Your task to perform on an android device: turn on the 24-hour format for clock Image 0: 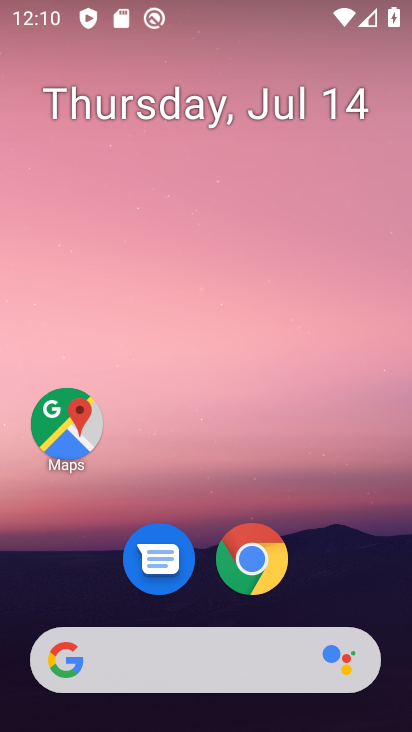
Step 0: drag from (308, 482) to (243, 15)
Your task to perform on an android device: turn on the 24-hour format for clock Image 1: 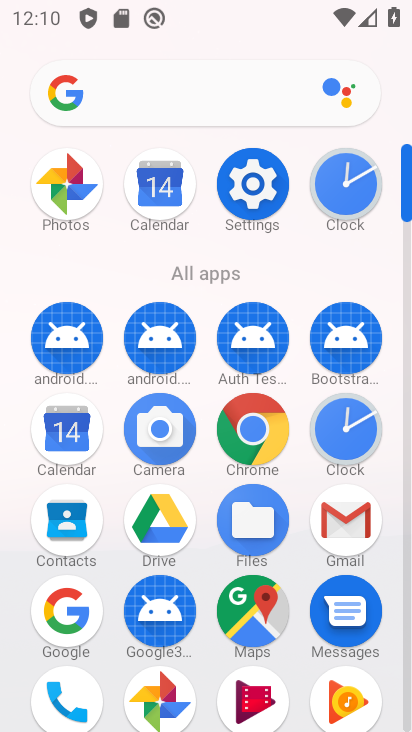
Step 1: click (336, 192)
Your task to perform on an android device: turn on the 24-hour format for clock Image 2: 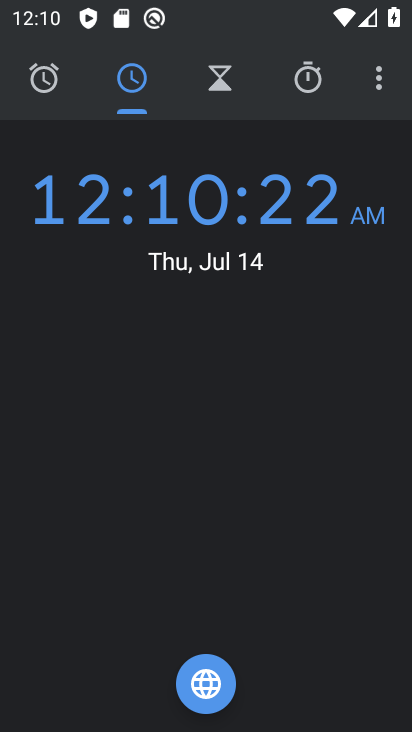
Step 2: click (376, 80)
Your task to perform on an android device: turn on the 24-hour format for clock Image 3: 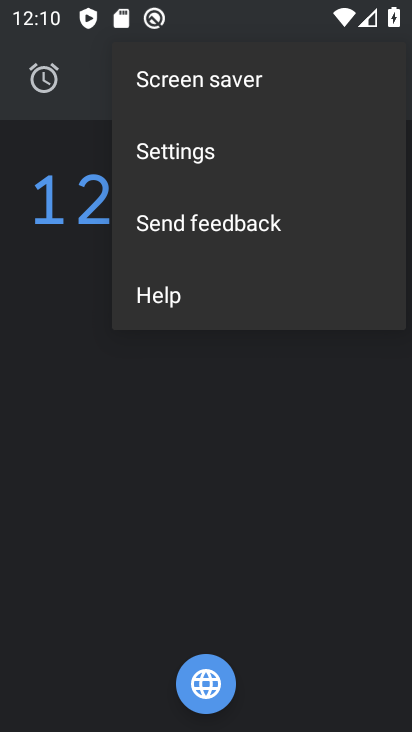
Step 3: click (237, 158)
Your task to perform on an android device: turn on the 24-hour format for clock Image 4: 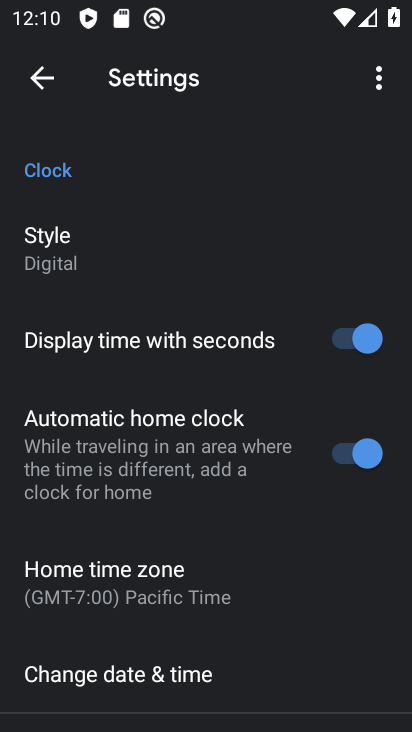
Step 4: click (200, 668)
Your task to perform on an android device: turn on the 24-hour format for clock Image 5: 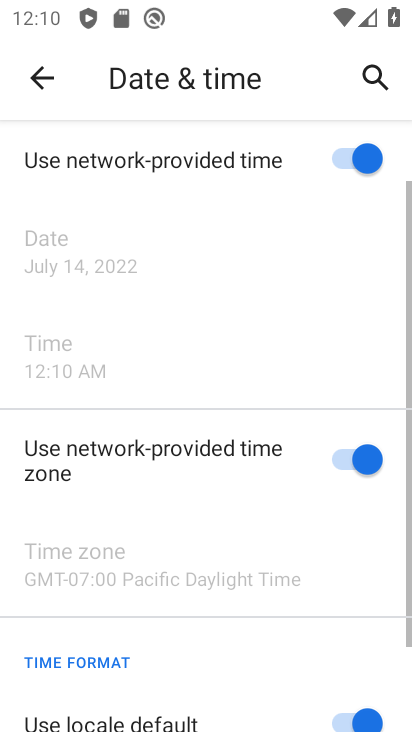
Step 5: drag from (235, 634) to (233, 504)
Your task to perform on an android device: turn on the 24-hour format for clock Image 6: 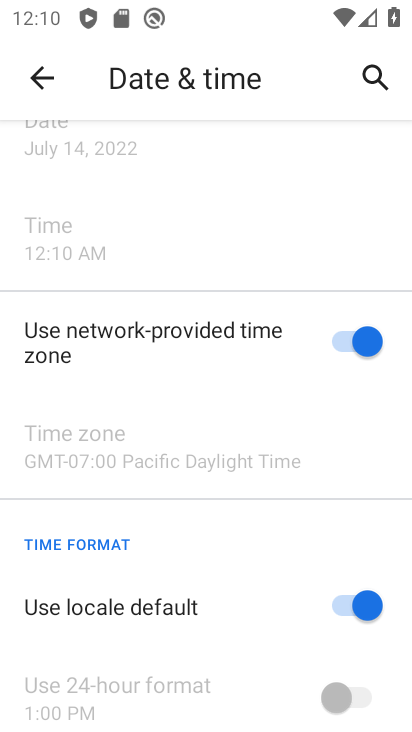
Step 6: click (346, 591)
Your task to perform on an android device: turn on the 24-hour format for clock Image 7: 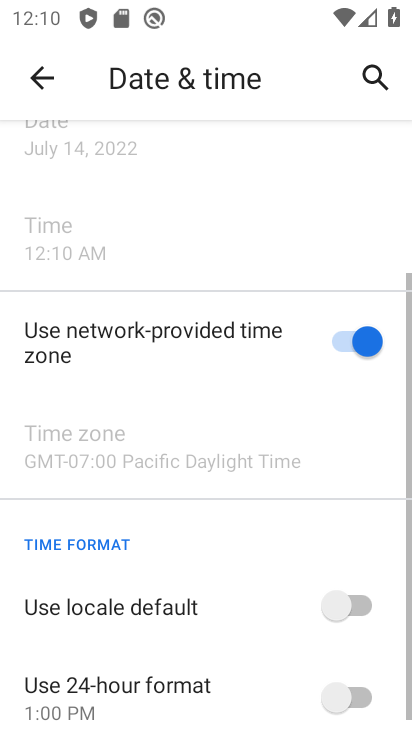
Step 7: click (356, 691)
Your task to perform on an android device: turn on the 24-hour format for clock Image 8: 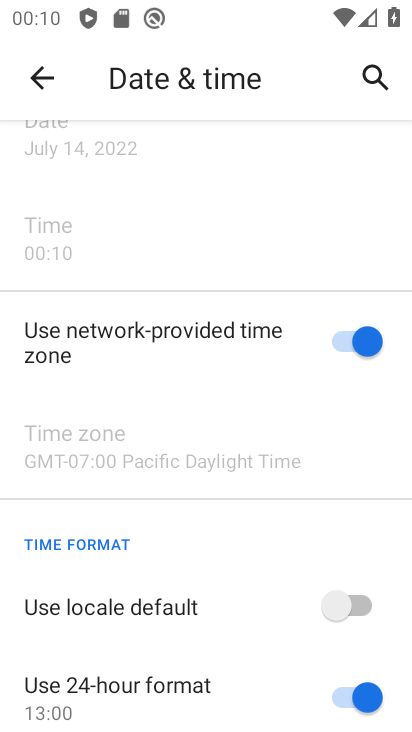
Step 8: task complete